Your task to perform on an android device: turn on sleep mode Image 0: 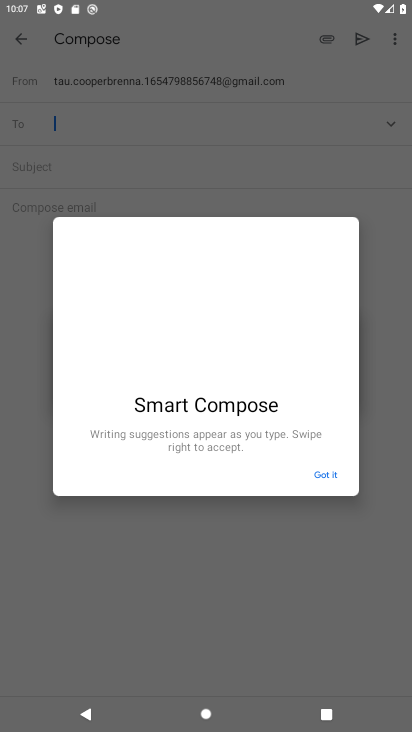
Step 0: press home button
Your task to perform on an android device: turn on sleep mode Image 1: 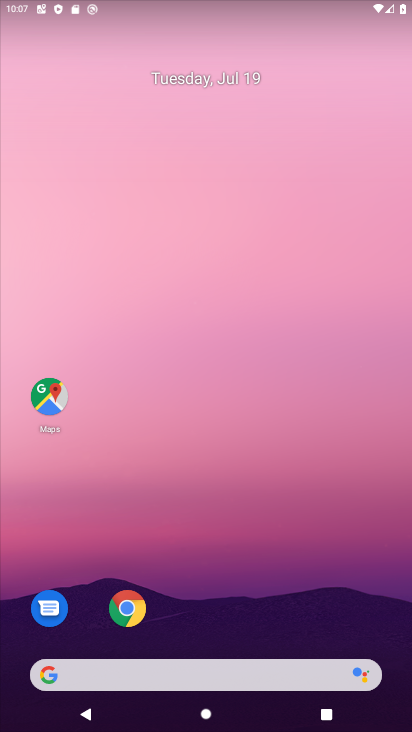
Step 1: drag from (195, 632) to (150, 56)
Your task to perform on an android device: turn on sleep mode Image 2: 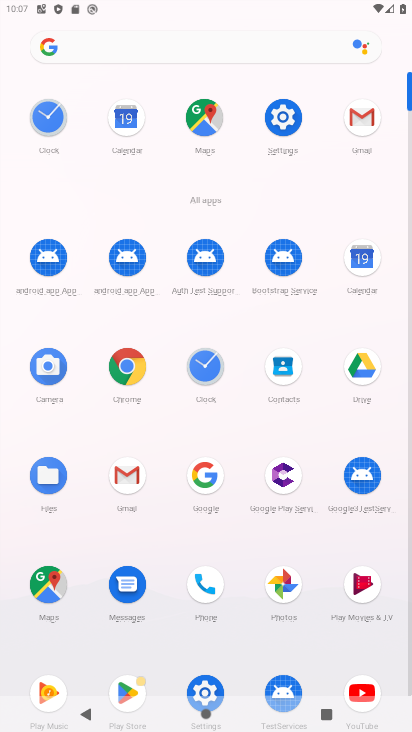
Step 2: click (291, 100)
Your task to perform on an android device: turn on sleep mode Image 3: 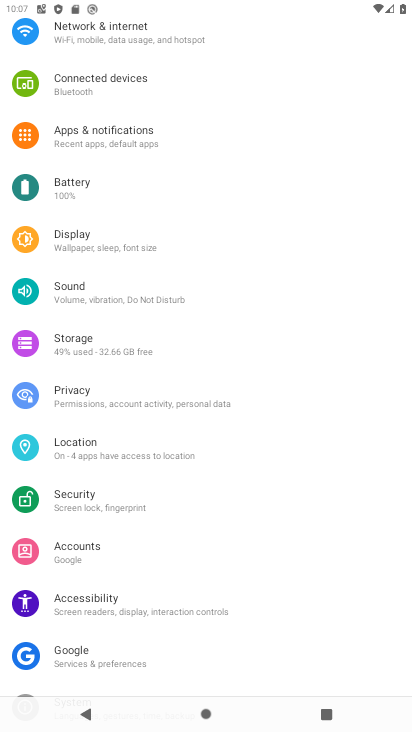
Step 3: click (30, 205)
Your task to perform on an android device: turn on sleep mode Image 4: 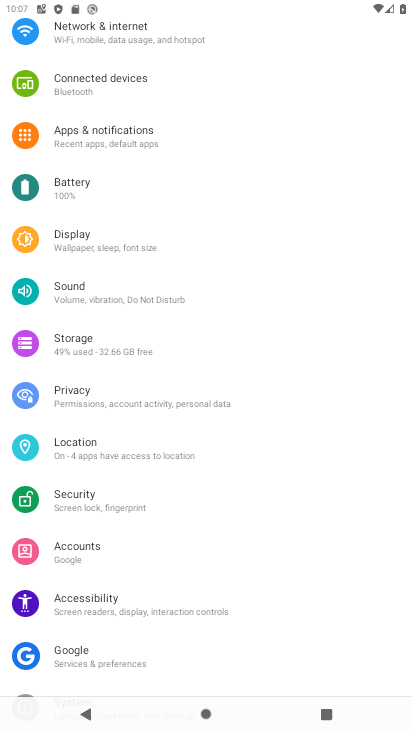
Step 4: click (56, 231)
Your task to perform on an android device: turn on sleep mode Image 5: 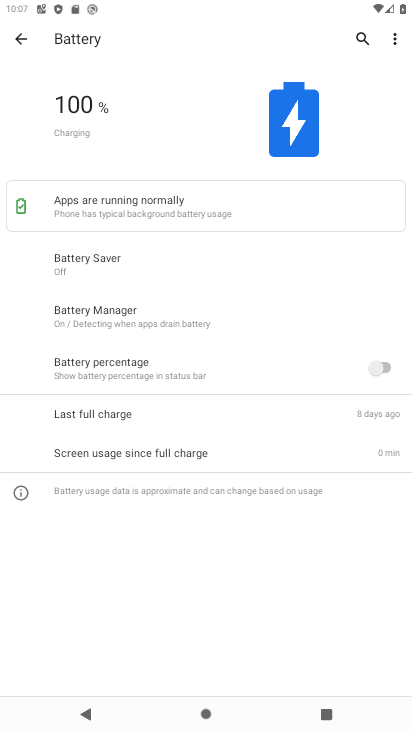
Step 5: task complete